Your task to perform on an android device: Do I have any events this weekend? Image 0: 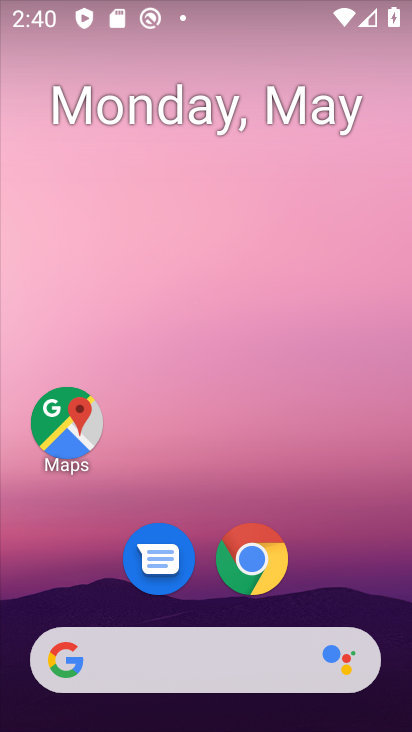
Step 0: drag from (343, 454) to (265, 72)
Your task to perform on an android device: Do I have any events this weekend? Image 1: 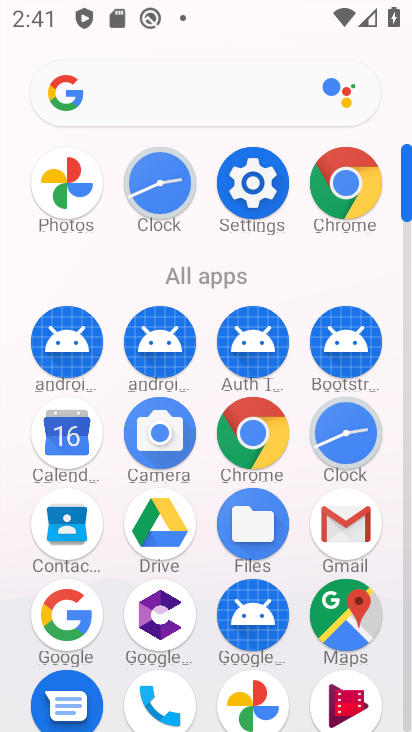
Step 1: drag from (19, 525) to (4, 263)
Your task to perform on an android device: Do I have any events this weekend? Image 2: 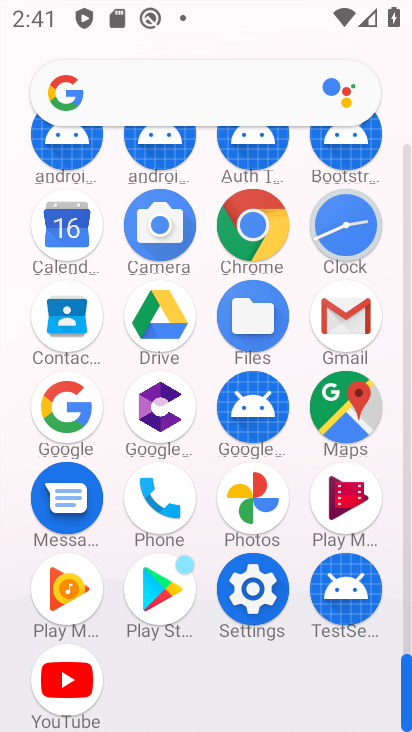
Step 2: click (66, 223)
Your task to perform on an android device: Do I have any events this weekend? Image 3: 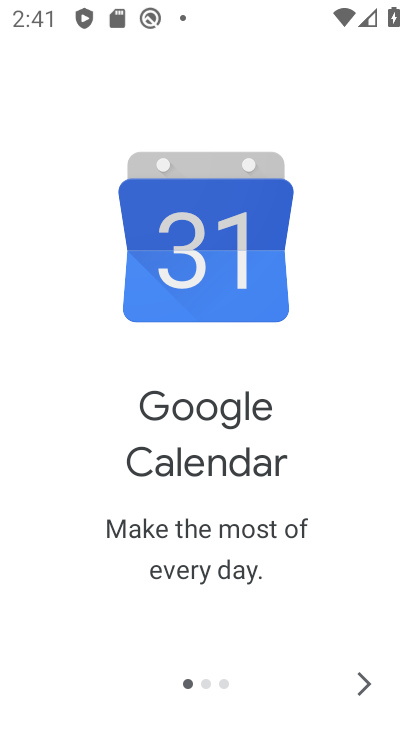
Step 3: click (371, 685)
Your task to perform on an android device: Do I have any events this weekend? Image 4: 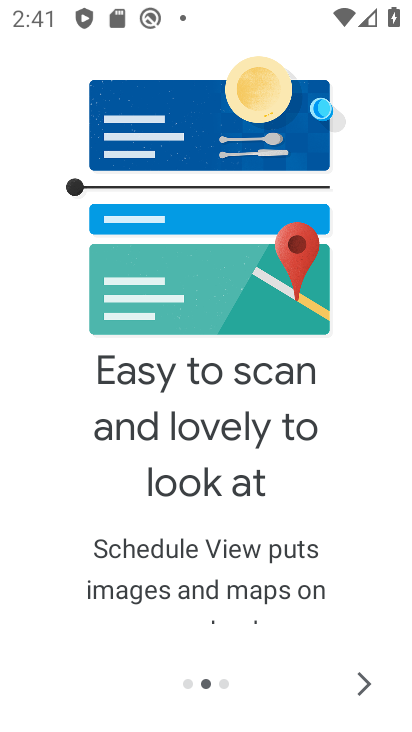
Step 4: click (368, 683)
Your task to perform on an android device: Do I have any events this weekend? Image 5: 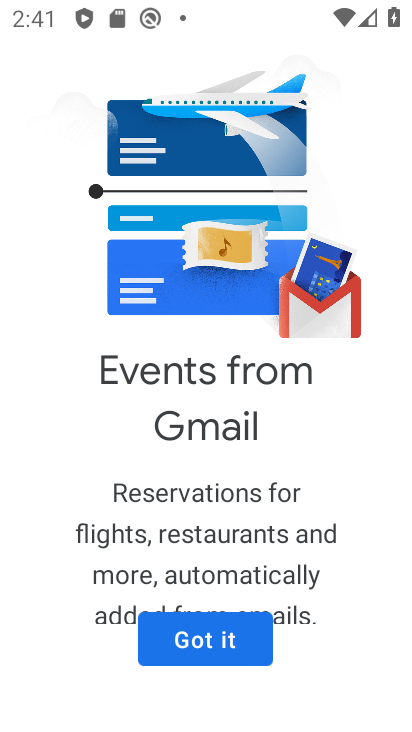
Step 5: click (185, 644)
Your task to perform on an android device: Do I have any events this weekend? Image 6: 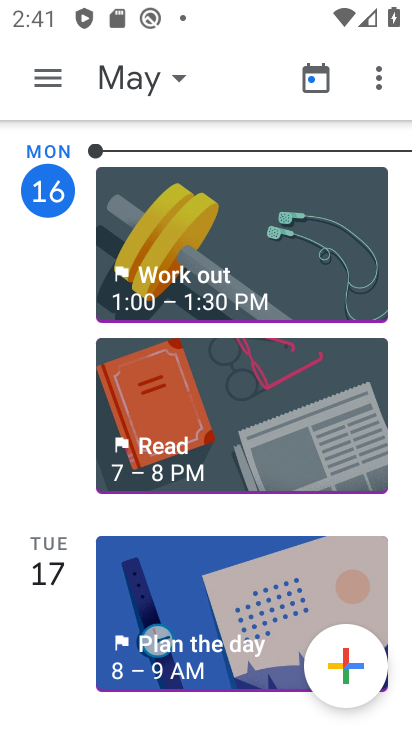
Step 6: click (45, 78)
Your task to perform on an android device: Do I have any events this weekend? Image 7: 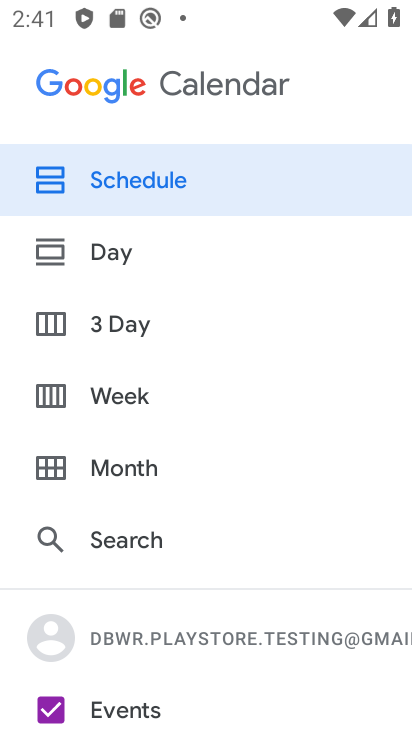
Step 7: click (138, 400)
Your task to perform on an android device: Do I have any events this weekend? Image 8: 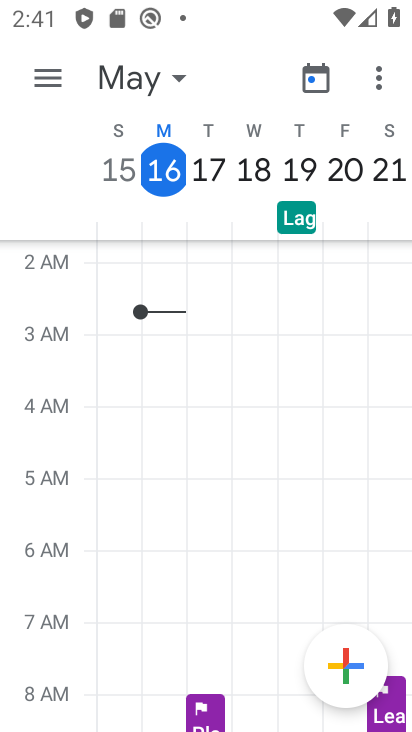
Step 8: click (343, 159)
Your task to perform on an android device: Do I have any events this weekend? Image 9: 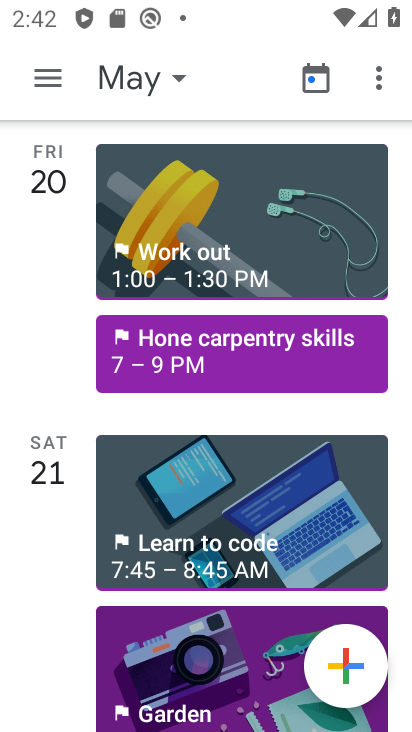
Step 9: task complete